Your task to perform on an android device: add a label to a message in the gmail app Image 0: 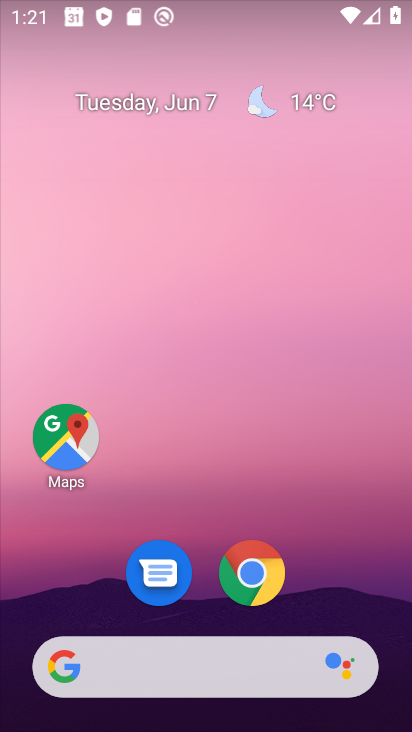
Step 0: press home button
Your task to perform on an android device: add a label to a message in the gmail app Image 1: 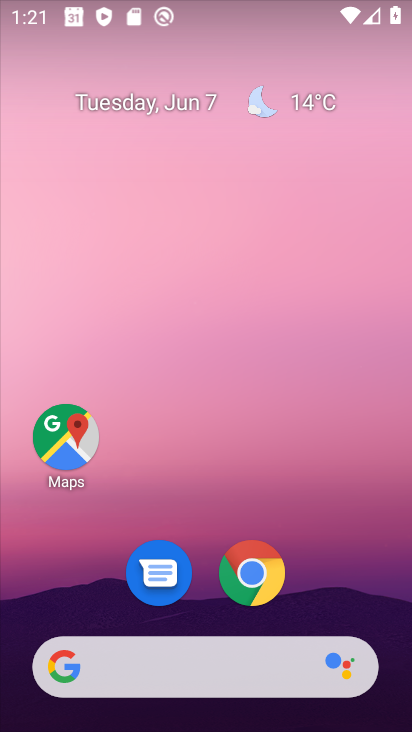
Step 1: drag from (205, 605) to (202, 79)
Your task to perform on an android device: add a label to a message in the gmail app Image 2: 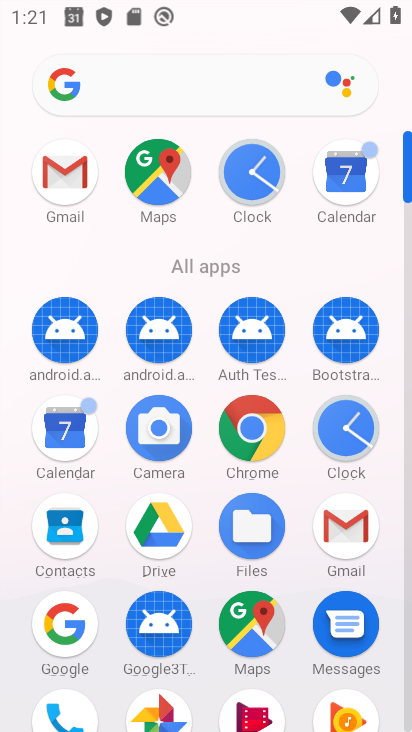
Step 2: click (64, 167)
Your task to perform on an android device: add a label to a message in the gmail app Image 3: 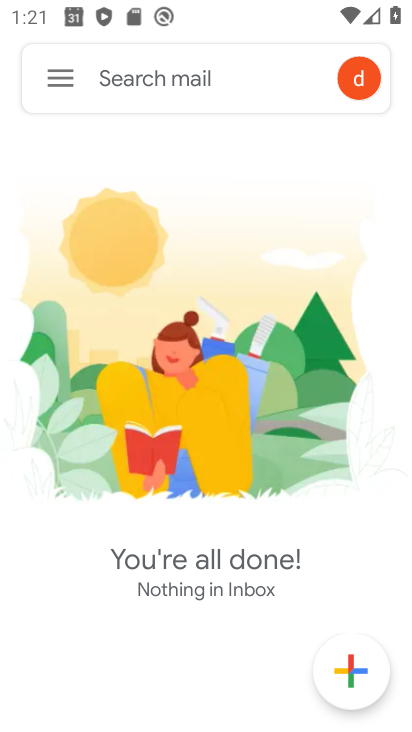
Step 3: task complete